Your task to perform on an android device: What's the weather like in London? Image 0: 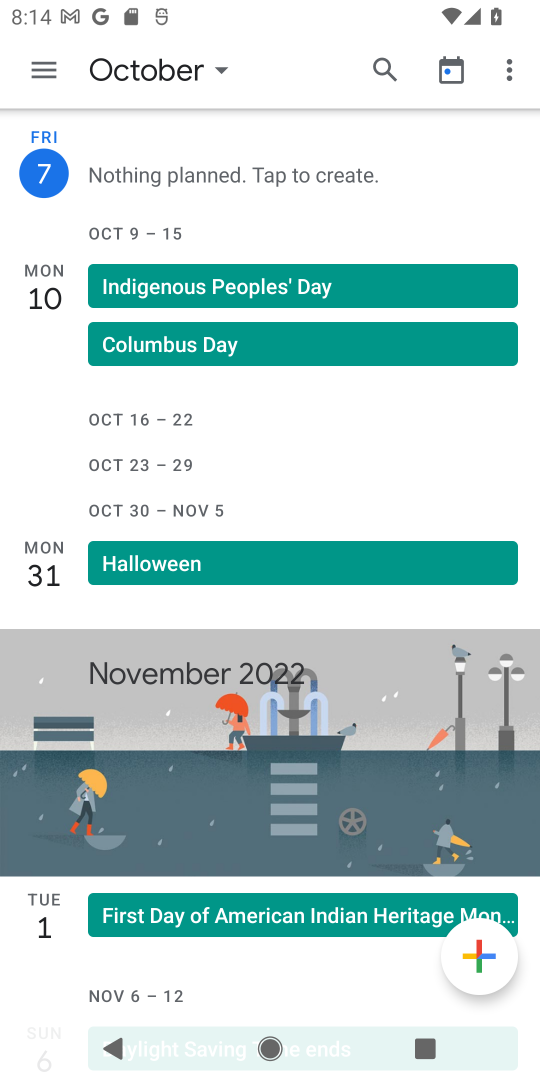
Step 0: press home button
Your task to perform on an android device: What's the weather like in London? Image 1: 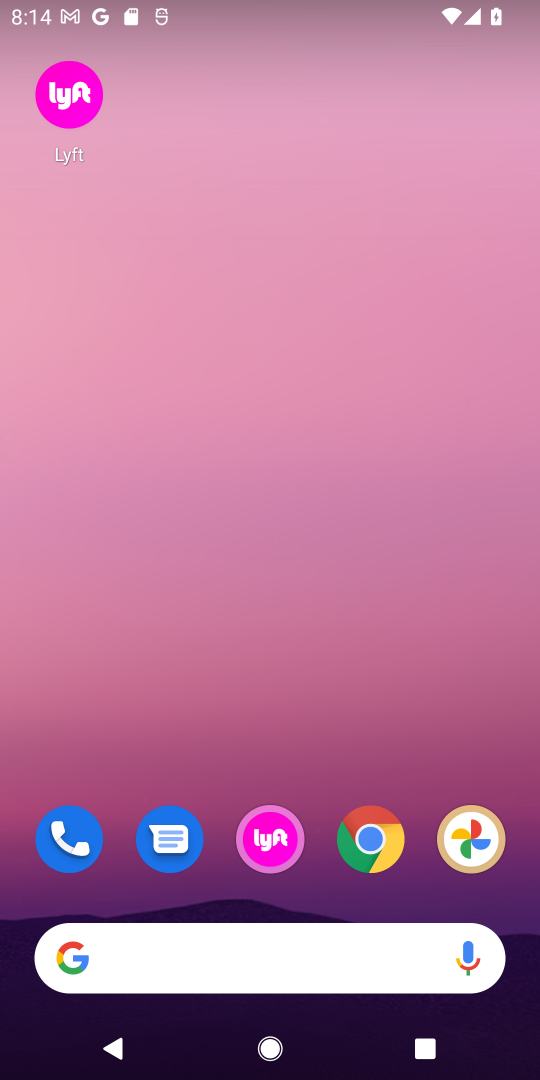
Step 1: click (364, 852)
Your task to perform on an android device: What's the weather like in London? Image 2: 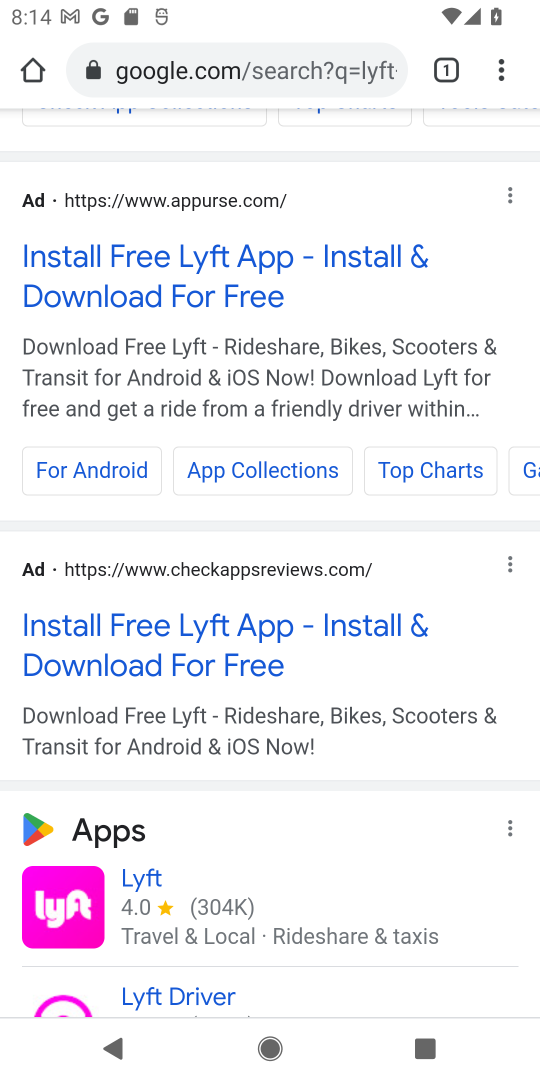
Step 2: click (321, 68)
Your task to perform on an android device: What's the weather like in London? Image 3: 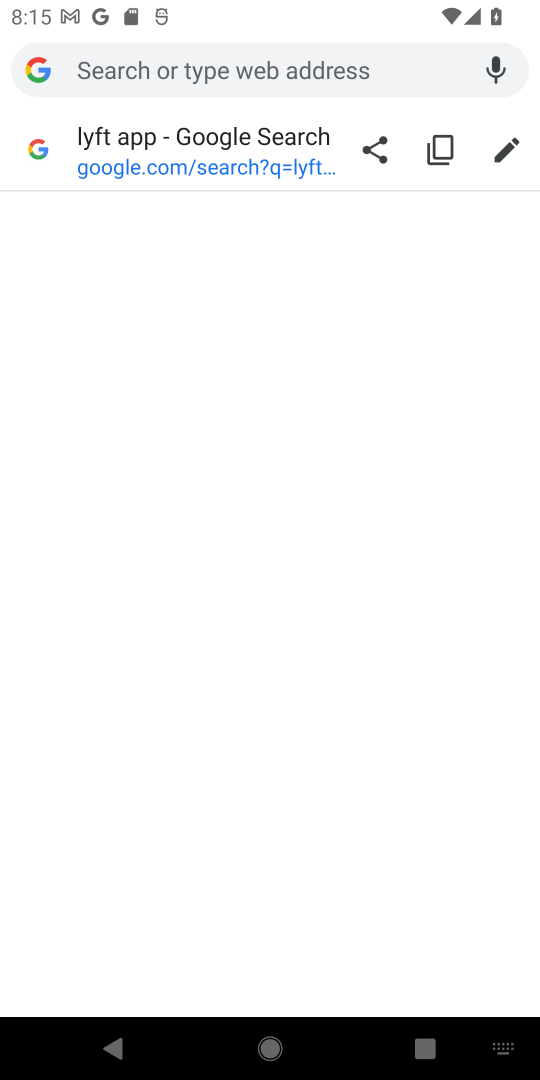
Step 3: type "whats the weather like in london"
Your task to perform on an android device: What's the weather like in London? Image 4: 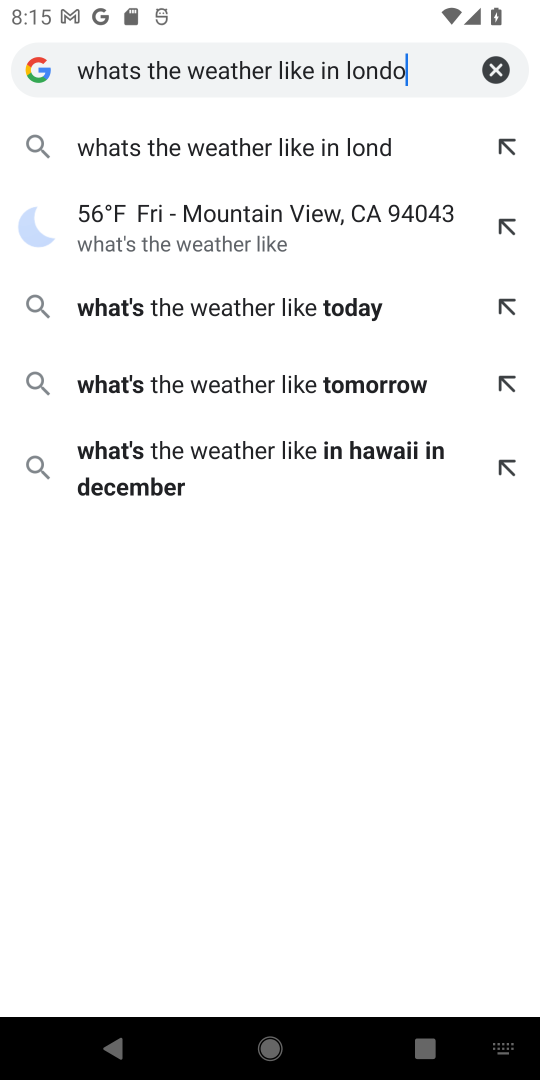
Step 4: type ""
Your task to perform on an android device: What's the weather like in London? Image 5: 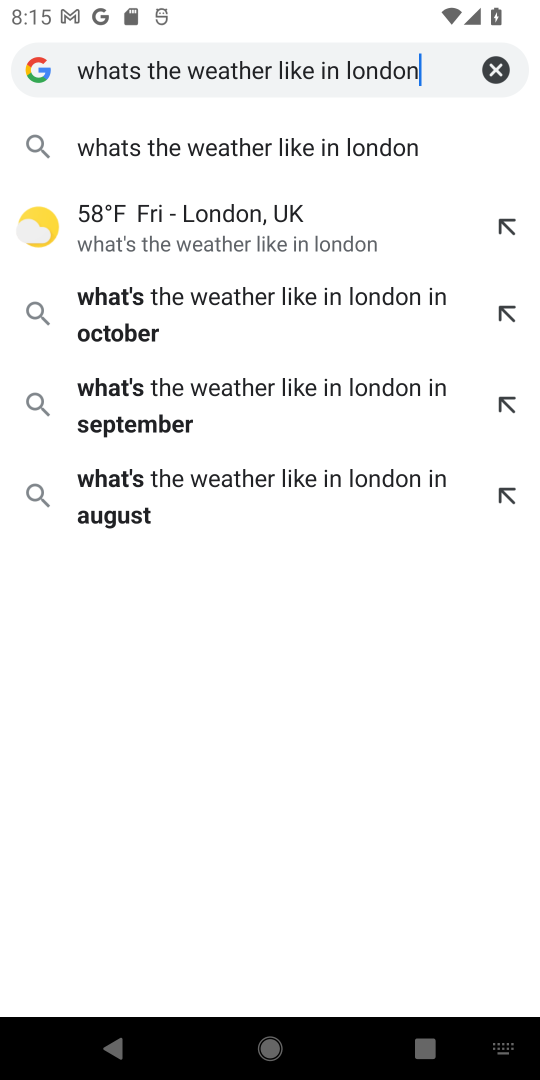
Step 5: click (246, 149)
Your task to perform on an android device: What's the weather like in London? Image 6: 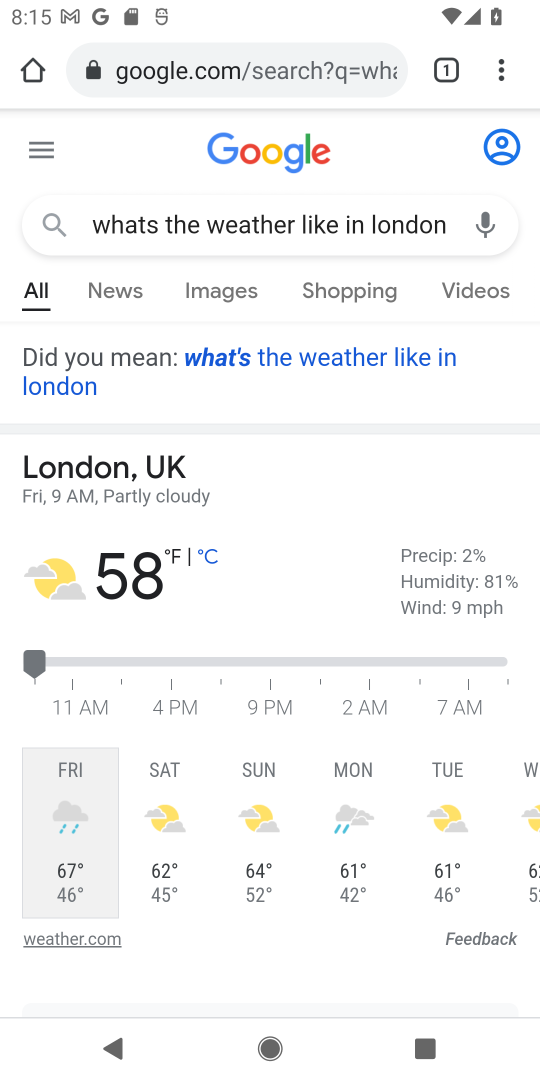
Step 6: task complete